Your task to perform on an android device: Go to wifi settings Image 0: 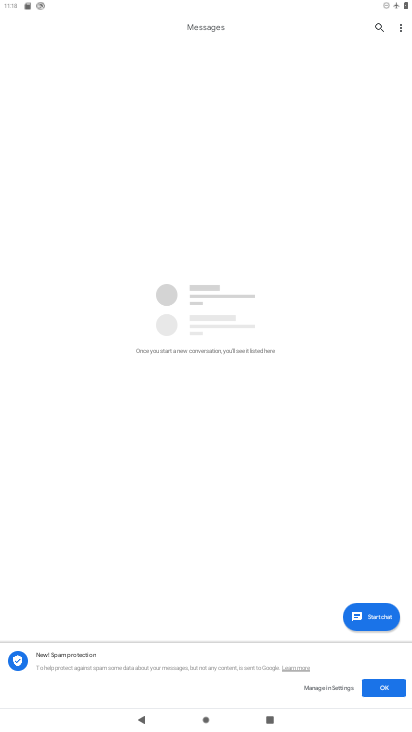
Step 0: press home button
Your task to perform on an android device: Go to wifi settings Image 1: 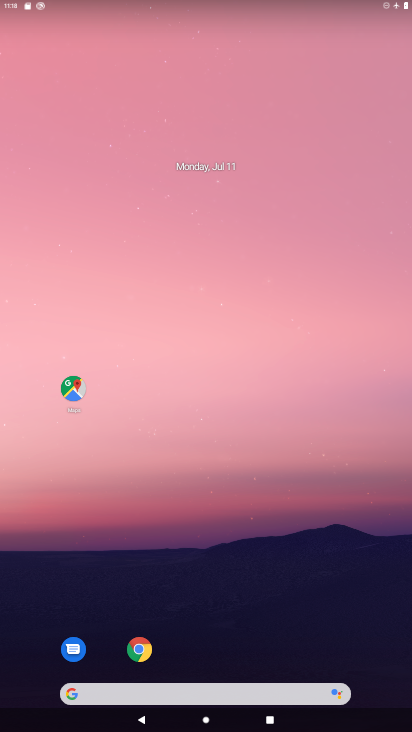
Step 1: drag from (301, 466) to (253, 96)
Your task to perform on an android device: Go to wifi settings Image 2: 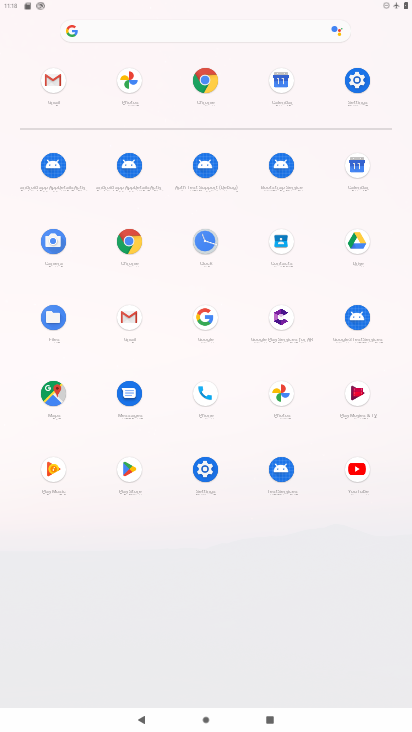
Step 2: click (360, 75)
Your task to perform on an android device: Go to wifi settings Image 3: 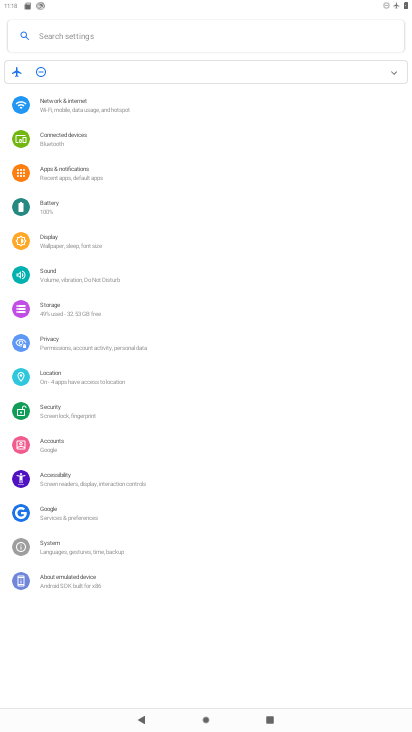
Step 3: click (87, 107)
Your task to perform on an android device: Go to wifi settings Image 4: 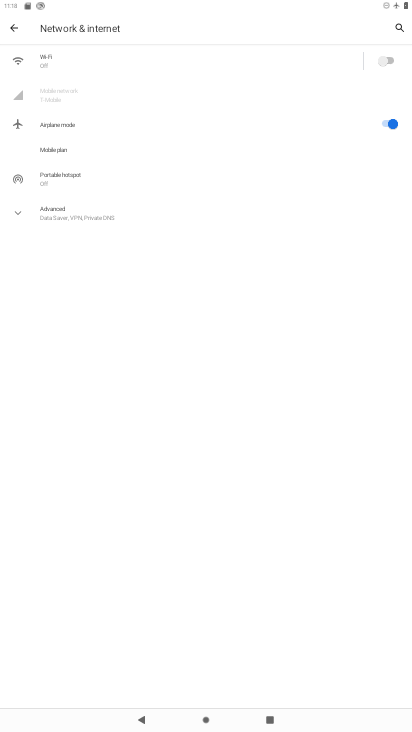
Step 4: click (99, 68)
Your task to perform on an android device: Go to wifi settings Image 5: 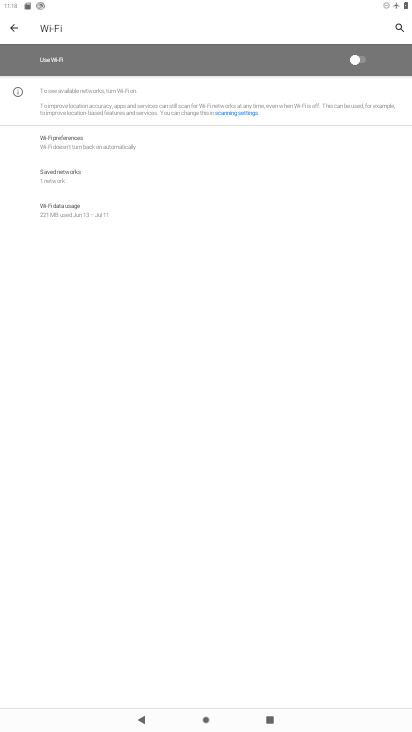
Step 5: click (403, 59)
Your task to perform on an android device: Go to wifi settings Image 6: 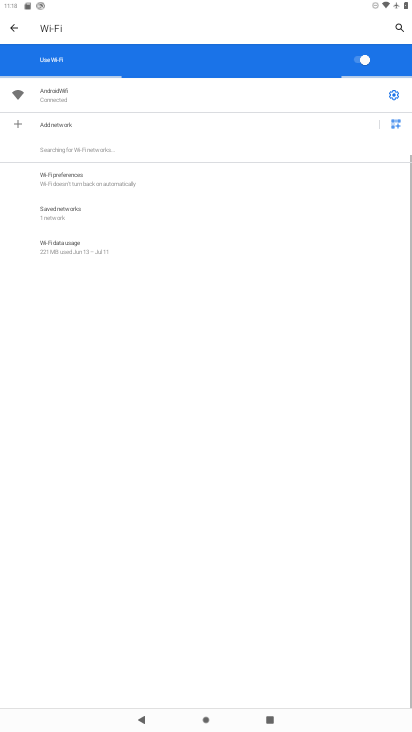
Step 6: click (399, 95)
Your task to perform on an android device: Go to wifi settings Image 7: 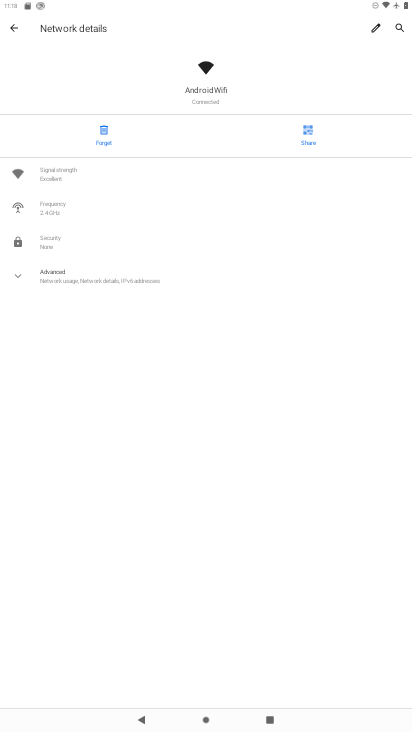
Step 7: task complete